Your task to perform on an android device: turn off smart reply in the gmail app Image 0: 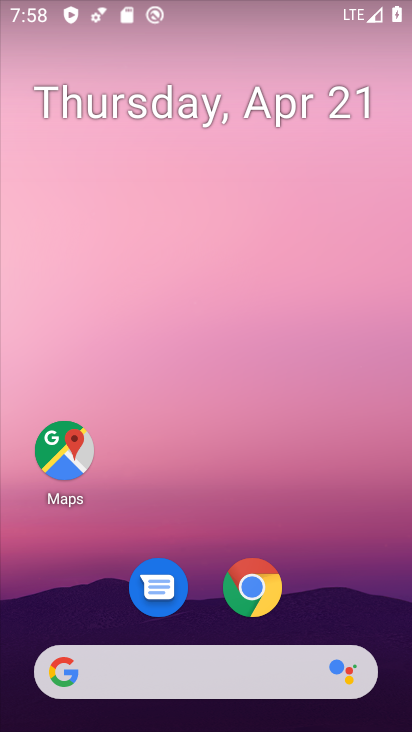
Step 0: drag from (382, 611) to (378, 232)
Your task to perform on an android device: turn off smart reply in the gmail app Image 1: 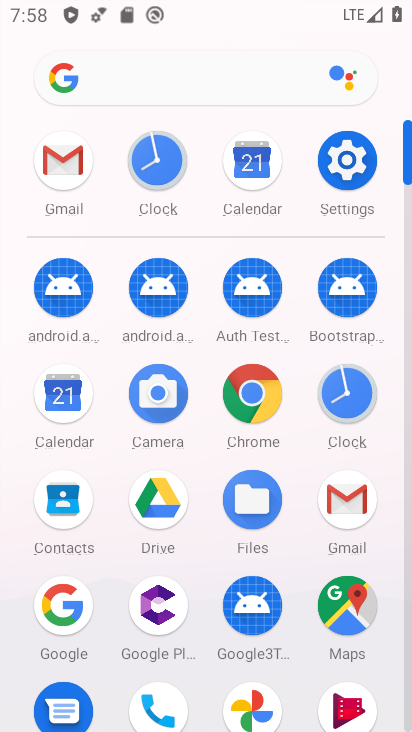
Step 1: click (341, 501)
Your task to perform on an android device: turn off smart reply in the gmail app Image 2: 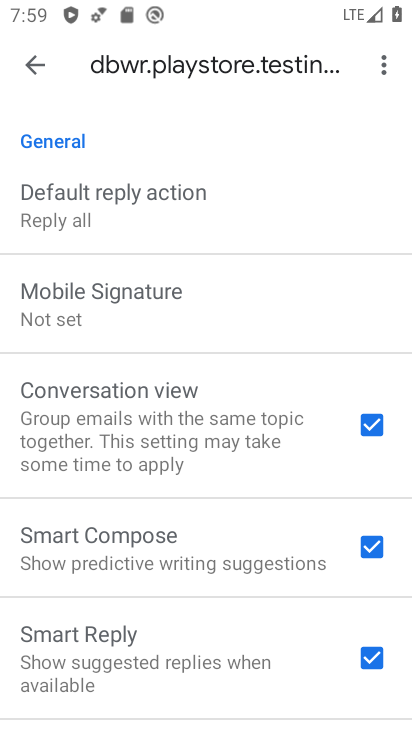
Step 2: click (361, 654)
Your task to perform on an android device: turn off smart reply in the gmail app Image 3: 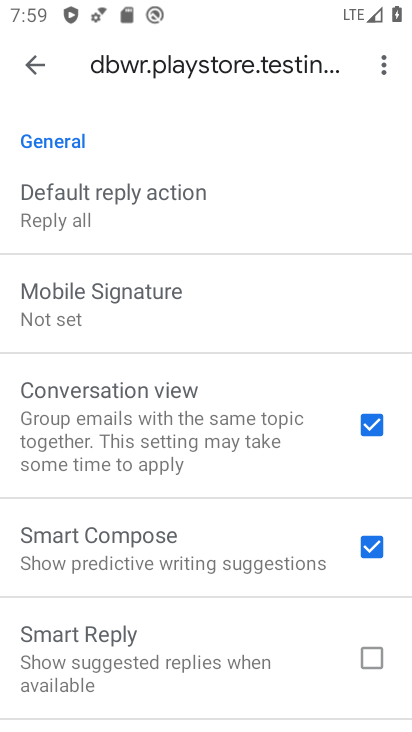
Step 3: task complete